Your task to perform on an android device: Open the calendar app, open the side menu, and click the "Day" option Image 0: 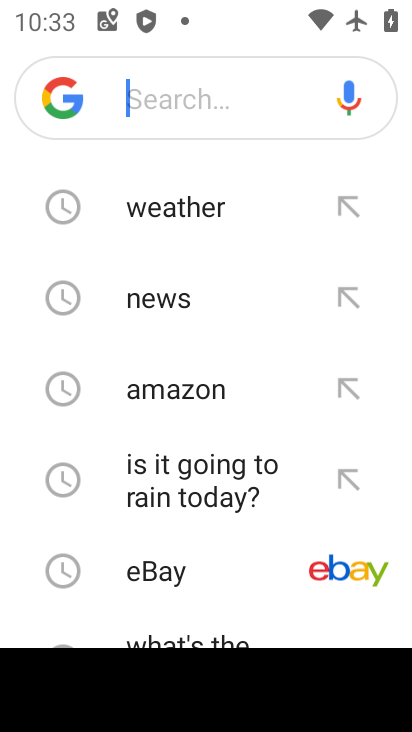
Step 0: press home button
Your task to perform on an android device: Open the calendar app, open the side menu, and click the "Day" option Image 1: 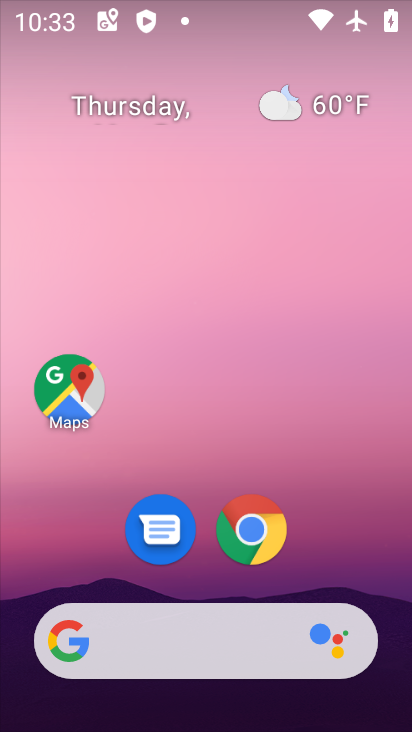
Step 1: drag from (388, 593) to (199, 77)
Your task to perform on an android device: Open the calendar app, open the side menu, and click the "Day" option Image 2: 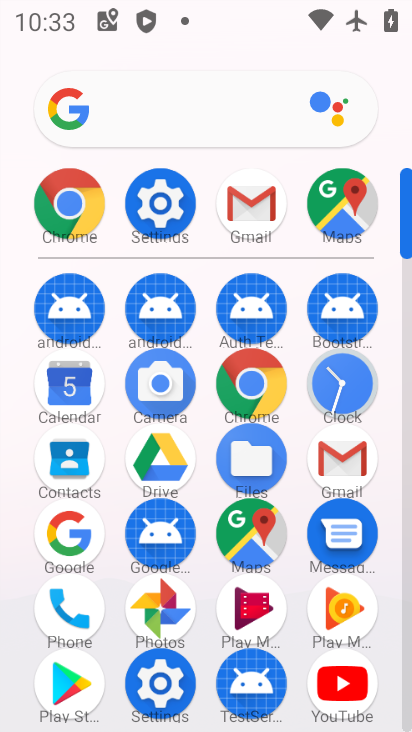
Step 2: click (49, 392)
Your task to perform on an android device: Open the calendar app, open the side menu, and click the "Day" option Image 3: 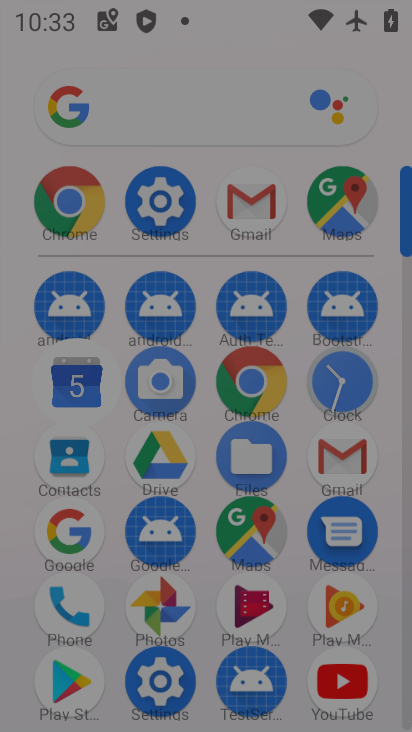
Step 3: click (64, 384)
Your task to perform on an android device: Open the calendar app, open the side menu, and click the "Day" option Image 4: 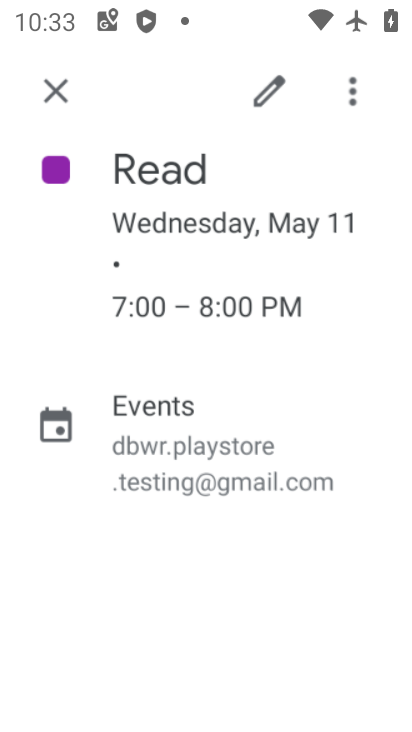
Step 4: click (70, 395)
Your task to perform on an android device: Open the calendar app, open the side menu, and click the "Day" option Image 5: 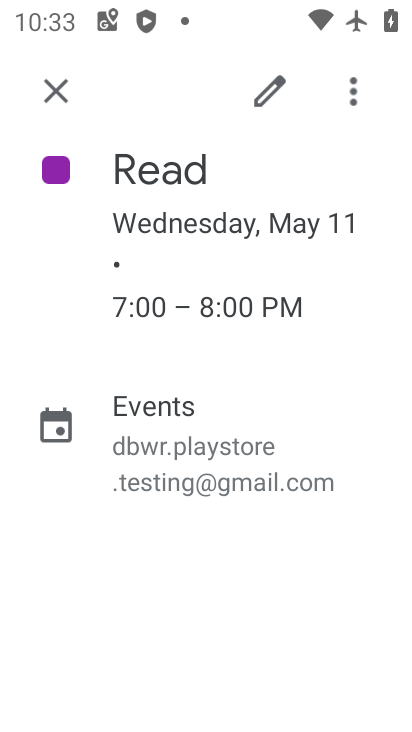
Step 5: click (62, 100)
Your task to perform on an android device: Open the calendar app, open the side menu, and click the "Day" option Image 6: 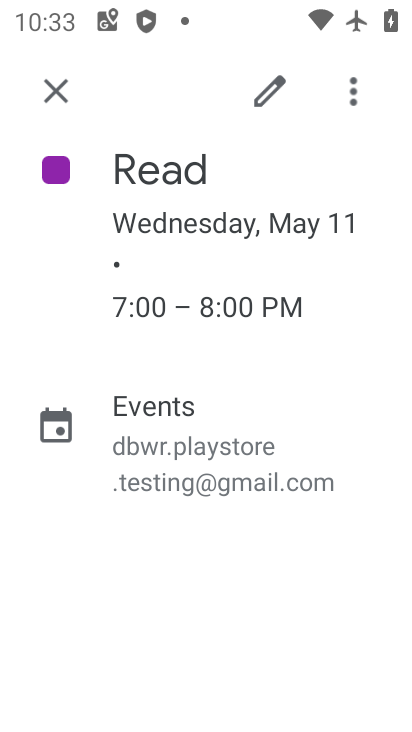
Step 6: click (62, 100)
Your task to perform on an android device: Open the calendar app, open the side menu, and click the "Day" option Image 7: 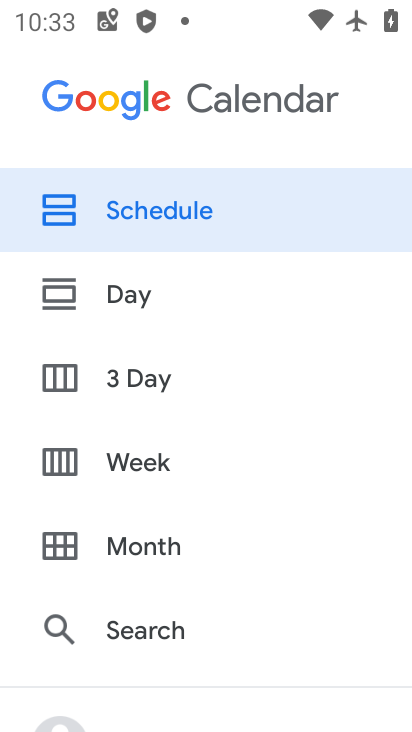
Step 7: click (116, 300)
Your task to perform on an android device: Open the calendar app, open the side menu, and click the "Day" option Image 8: 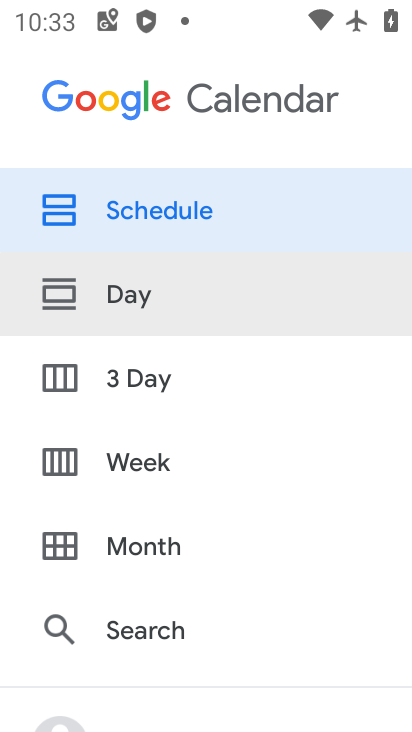
Step 8: click (116, 295)
Your task to perform on an android device: Open the calendar app, open the side menu, and click the "Day" option Image 9: 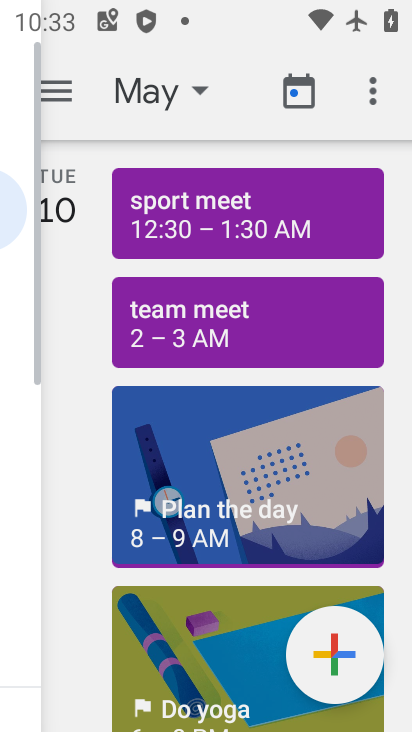
Step 9: click (116, 295)
Your task to perform on an android device: Open the calendar app, open the side menu, and click the "Day" option Image 10: 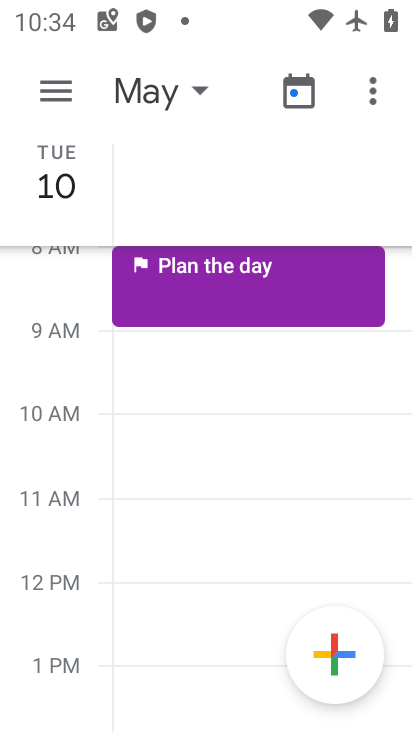
Step 10: click (199, 449)
Your task to perform on an android device: Open the calendar app, open the side menu, and click the "Day" option Image 11: 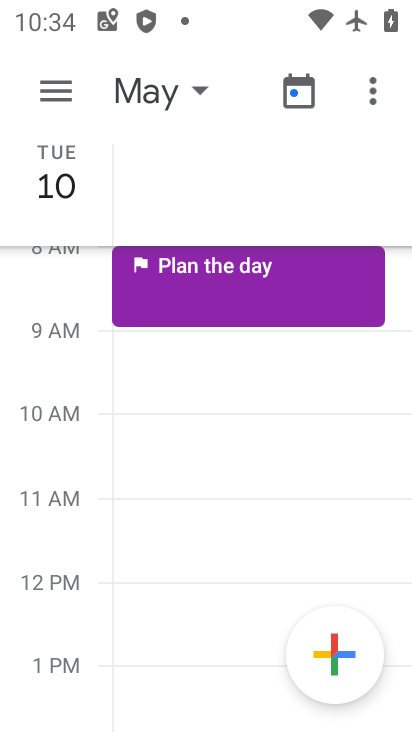
Step 11: task complete